Your task to perform on an android device: open app "Google Maps" (install if not already installed) Image 0: 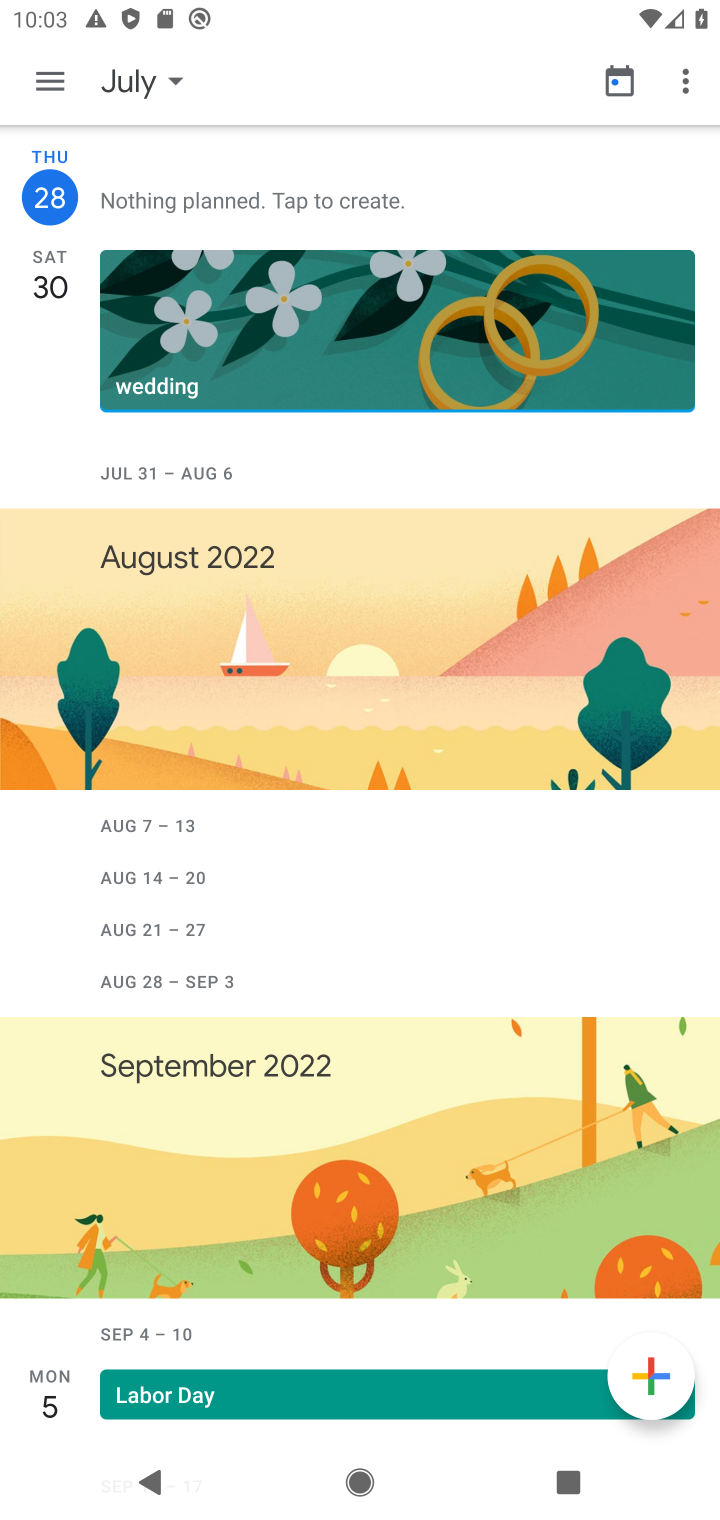
Step 0: press home button
Your task to perform on an android device: open app "Google Maps" (install if not already installed) Image 1: 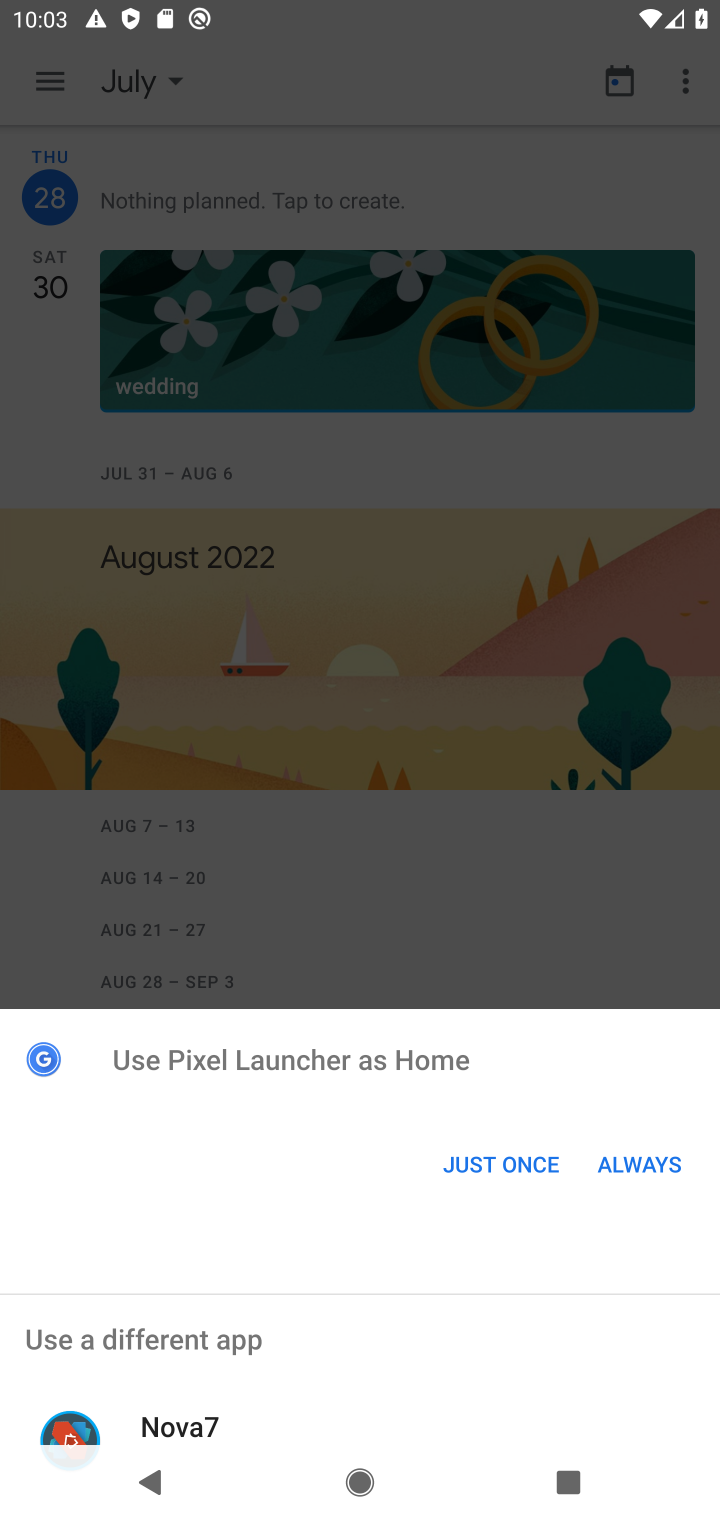
Step 1: task complete